Your task to perform on an android device: find which apps use the phone's location Image 0: 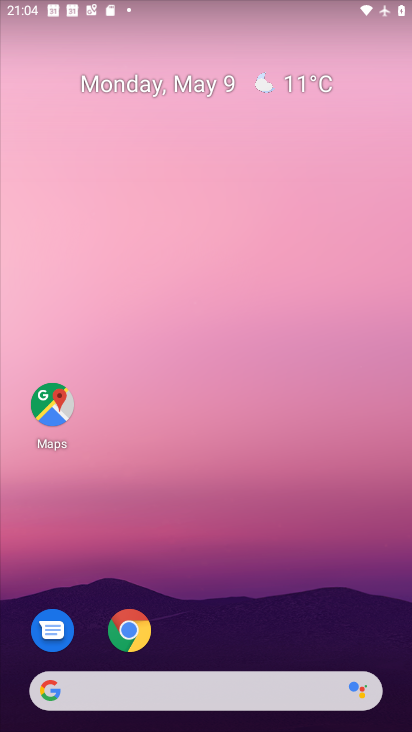
Step 0: drag from (242, 641) to (239, 97)
Your task to perform on an android device: find which apps use the phone's location Image 1: 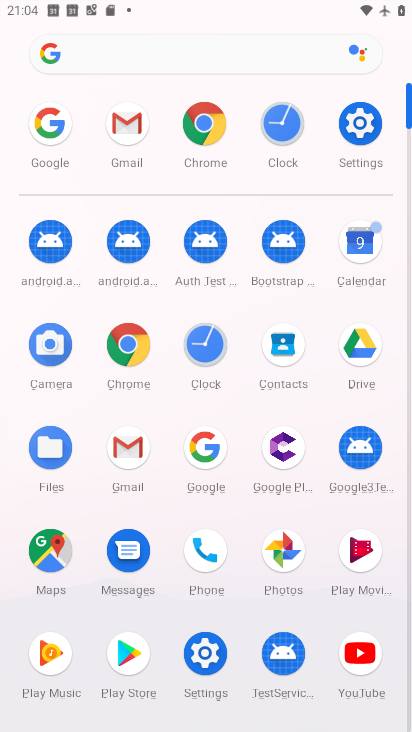
Step 1: click (350, 140)
Your task to perform on an android device: find which apps use the phone's location Image 2: 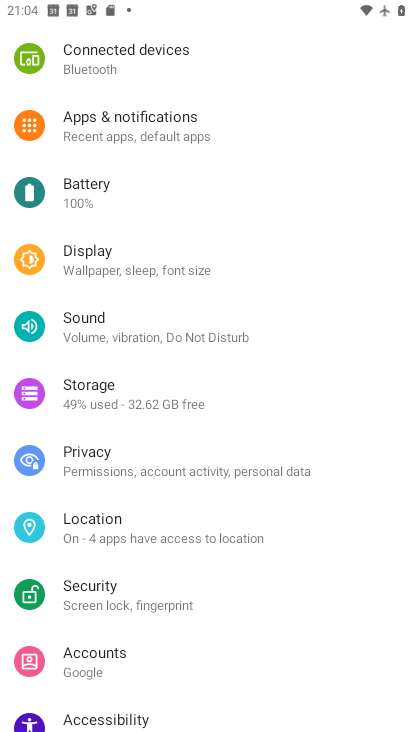
Step 2: drag from (112, 679) to (149, 550)
Your task to perform on an android device: find which apps use the phone's location Image 3: 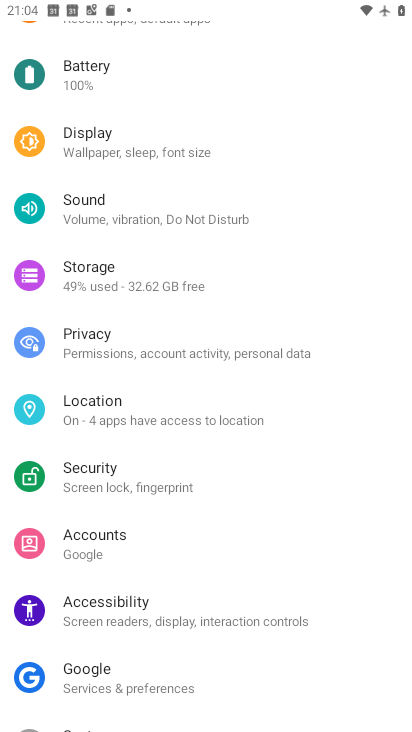
Step 3: drag from (265, 125) to (314, 344)
Your task to perform on an android device: find which apps use the phone's location Image 4: 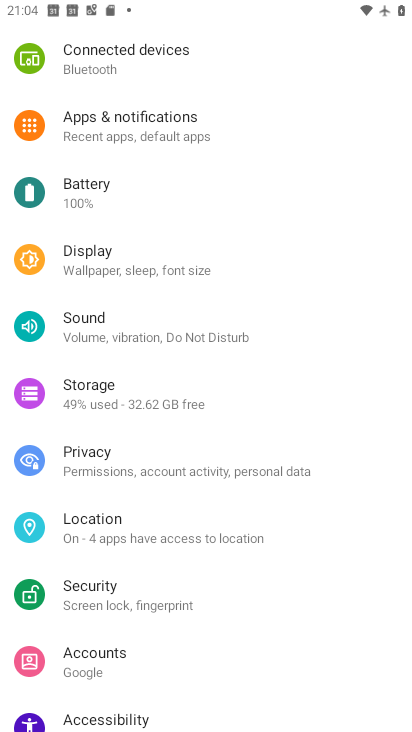
Step 4: click (126, 538)
Your task to perform on an android device: find which apps use the phone's location Image 5: 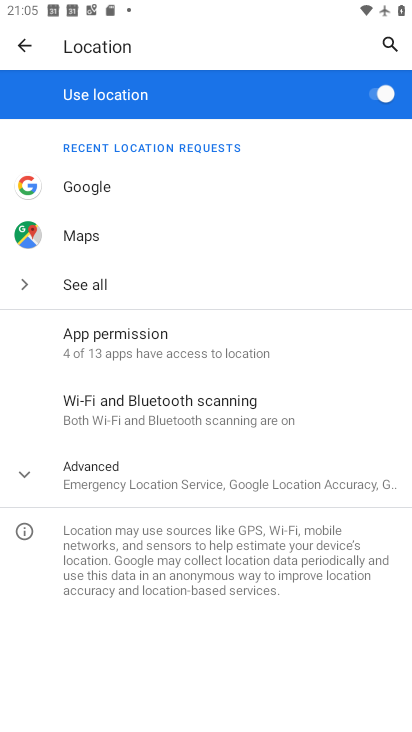
Step 5: click (94, 184)
Your task to perform on an android device: find which apps use the phone's location Image 6: 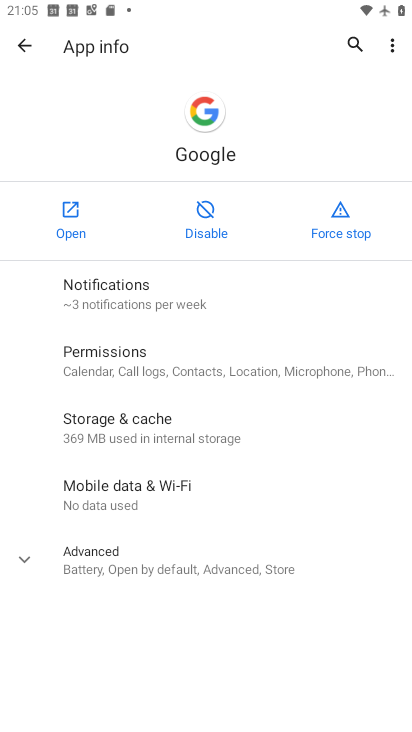
Step 6: click (178, 371)
Your task to perform on an android device: find which apps use the phone's location Image 7: 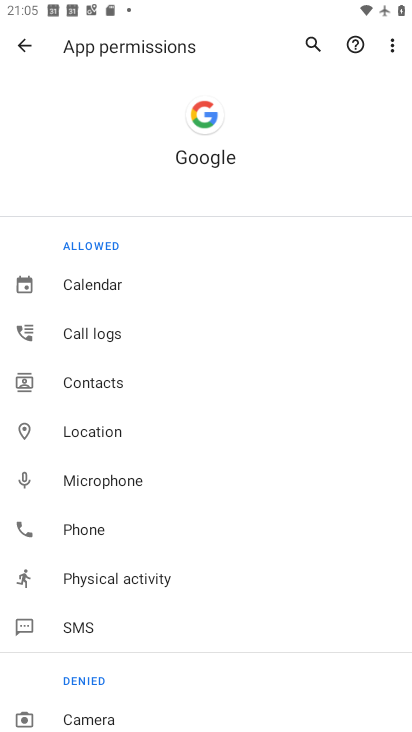
Step 7: click (89, 429)
Your task to perform on an android device: find which apps use the phone's location Image 8: 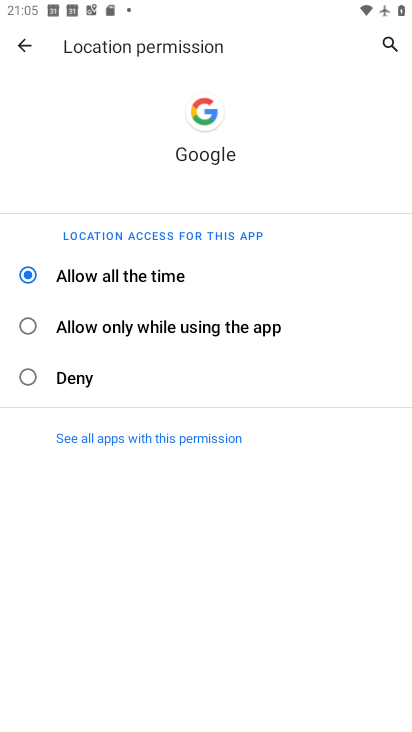
Step 8: task complete